Your task to perform on an android device: Show me recent news Image 0: 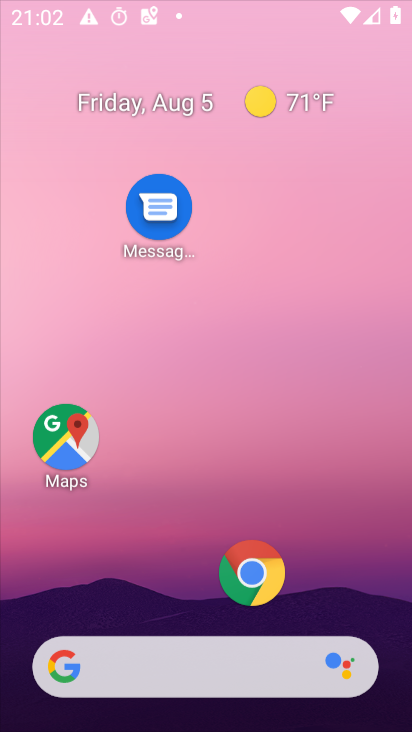
Step 0: press home button
Your task to perform on an android device: Show me recent news Image 1: 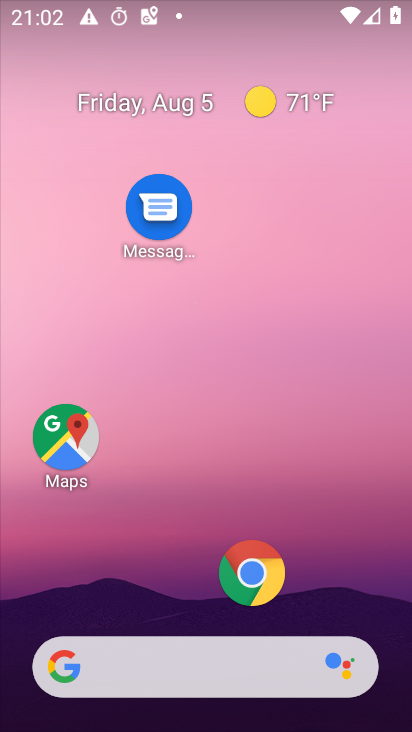
Step 1: task complete